Your task to perform on an android device: Go to eBay Image 0: 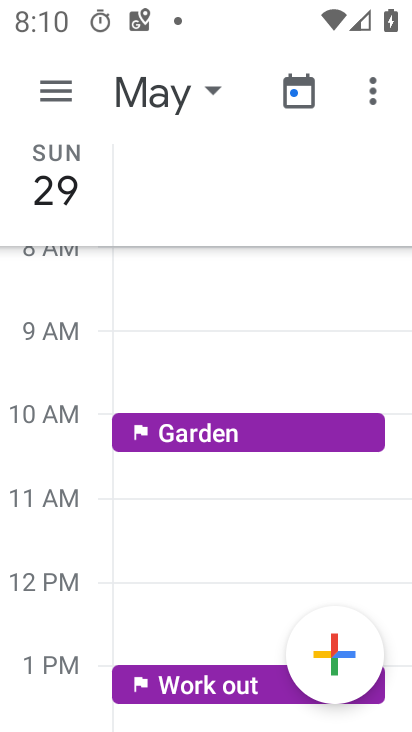
Step 0: press home button
Your task to perform on an android device: Go to eBay Image 1: 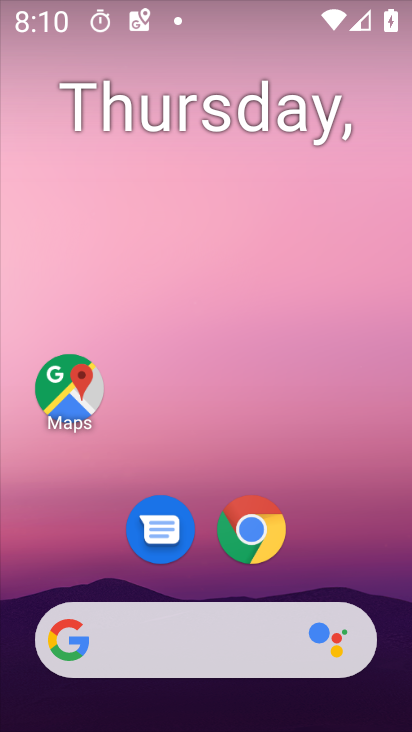
Step 1: click (263, 519)
Your task to perform on an android device: Go to eBay Image 2: 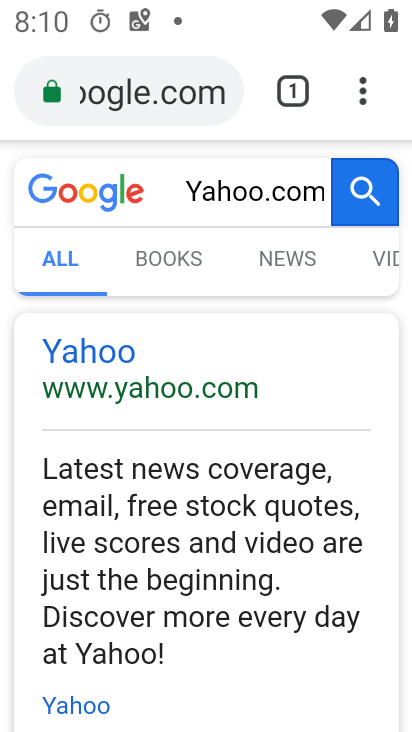
Step 2: click (227, 87)
Your task to perform on an android device: Go to eBay Image 3: 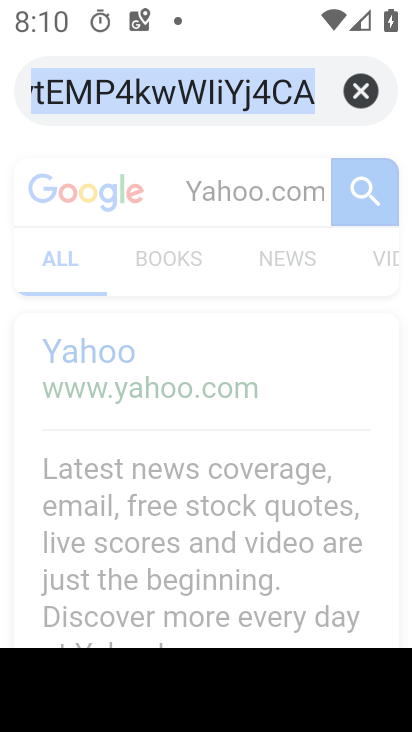
Step 3: click (369, 84)
Your task to perform on an android device: Go to eBay Image 4: 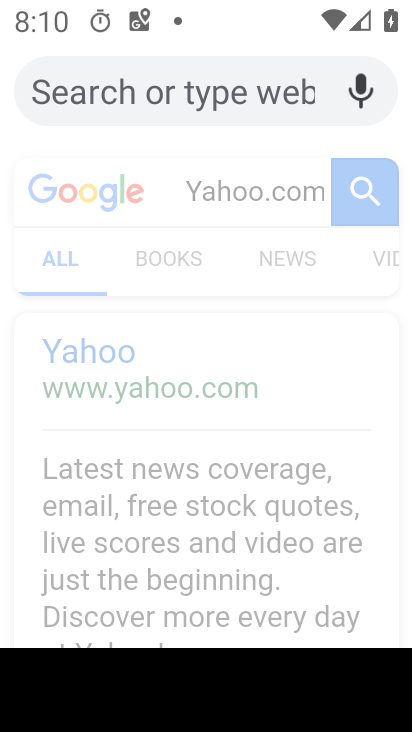
Step 4: type "eBay"
Your task to perform on an android device: Go to eBay Image 5: 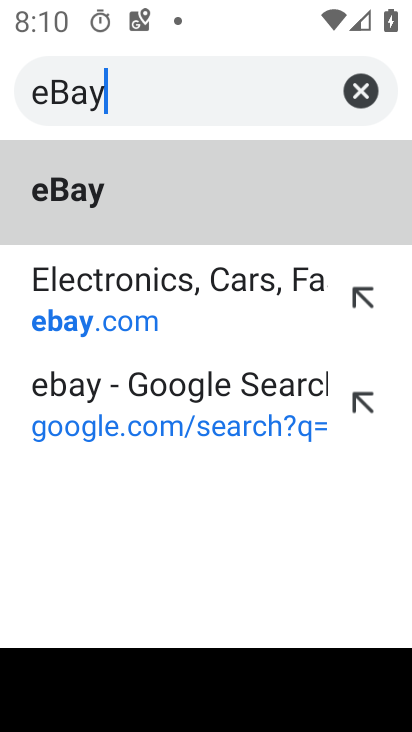
Step 5: click (103, 188)
Your task to perform on an android device: Go to eBay Image 6: 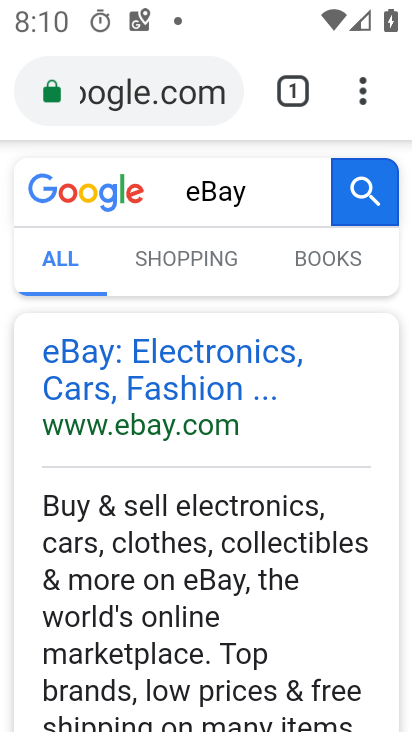
Step 6: task complete